Your task to perform on an android device: Open calendar and show me the second week of next month Image 0: 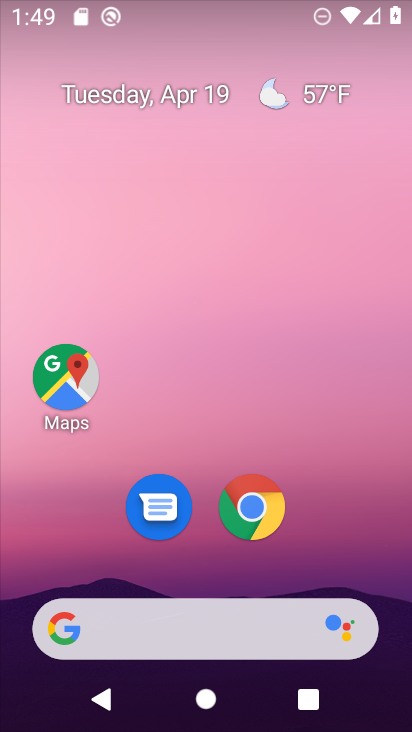
Step 0: drag from (328, 506) to (280, 26)
Your task to perform on an android device: Open calendar and show me the second week of next month Image 1: 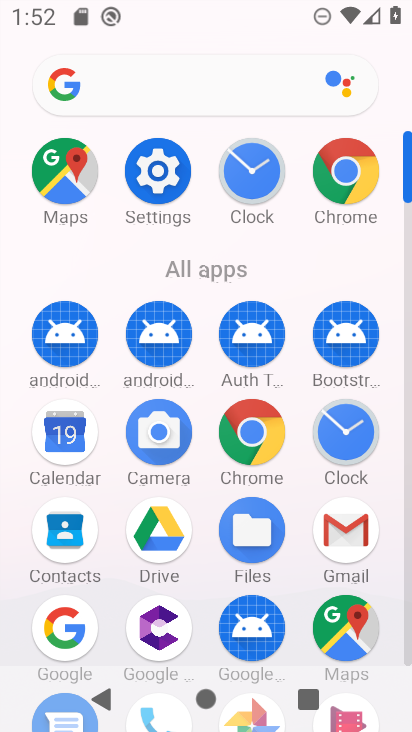
Step 1: click (68, 449)
Your task to perform on an android device: Open calendar and show me the second week of next month Image 2: 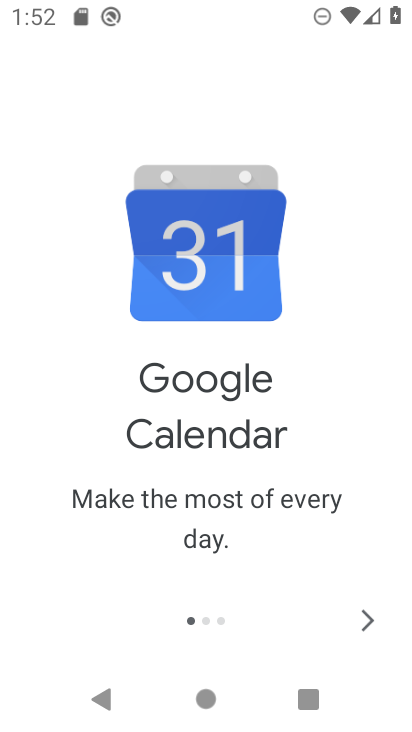
Step 2: click (355, 611)
Your task to perform on an android device: Open calendar and show me the second week of next month Image 3: 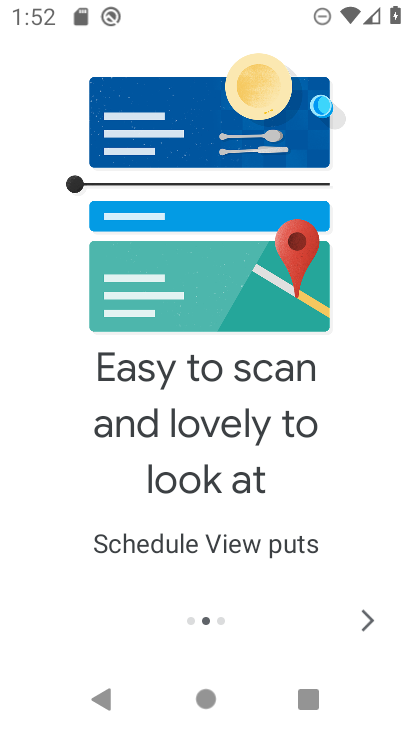
Step 3: click (355, 611)
Your task to perform on an android device: Open calendar and show me the second week of next month Image 4: 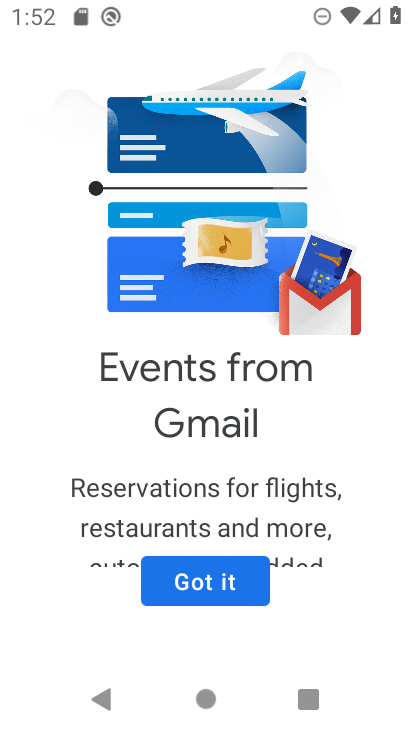
Step 4: click (228, 570)
Your task to perform on an android device: Open calendar and show me the second week of next month Image 5: 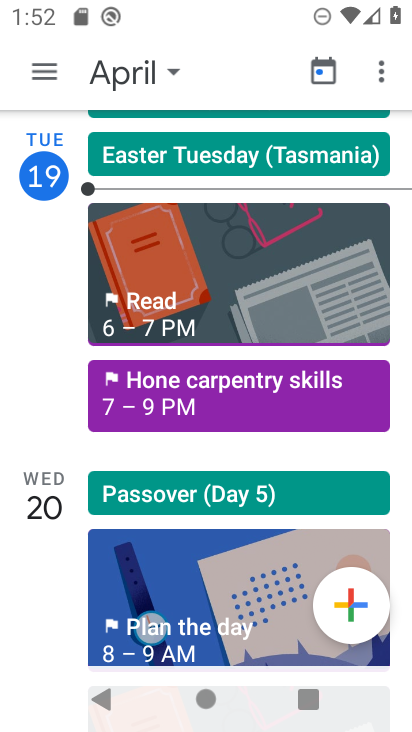
Step 5: click (132, 78)
Your task to perform on an android device: Open calendar and show me the second week of next month Image 6: 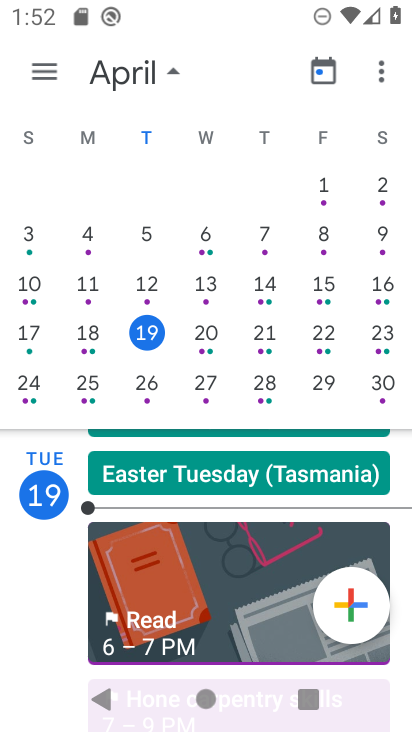
Step 6: drag from (369, 221) to (15, 389)
Your task to perform on an android device: Open calendar and show me the second week of next month Image 7: 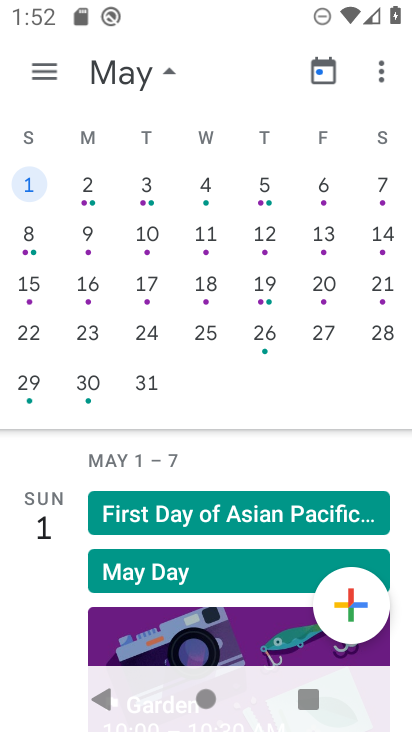
Step 7: click (138, 237)
Your task to perform on an android device: Open calendar and show me the second week of next month Image 8: 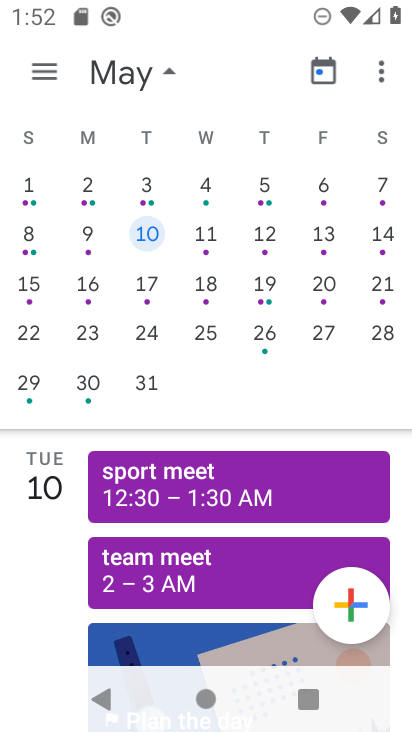
Step 8: task complete